Your task to perform on an android device: What is the speed of a train? Image 0: 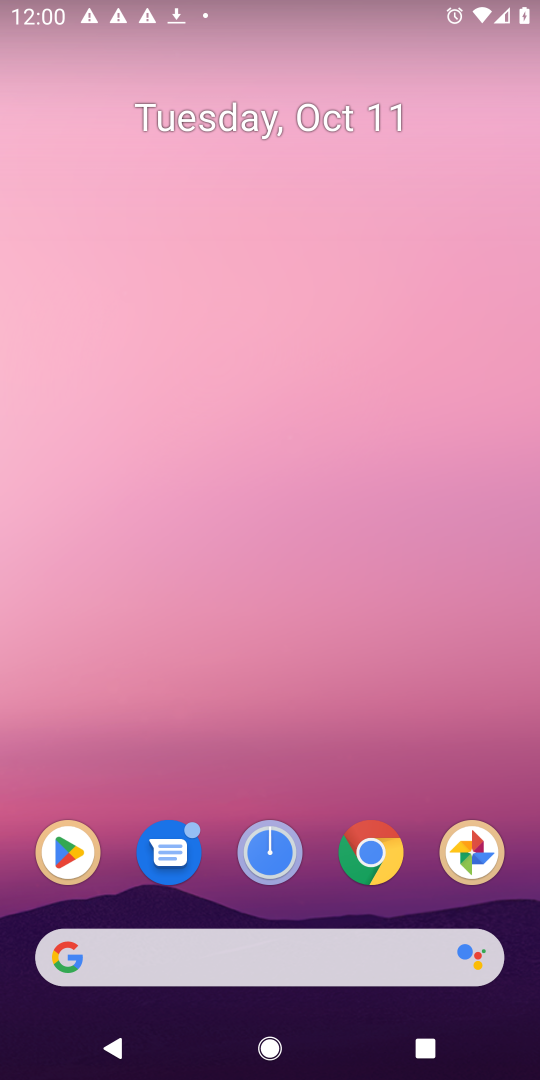
Step 0: click (354, 853)
Your task to perform on an android device: What is the speed of a train? Image 1: 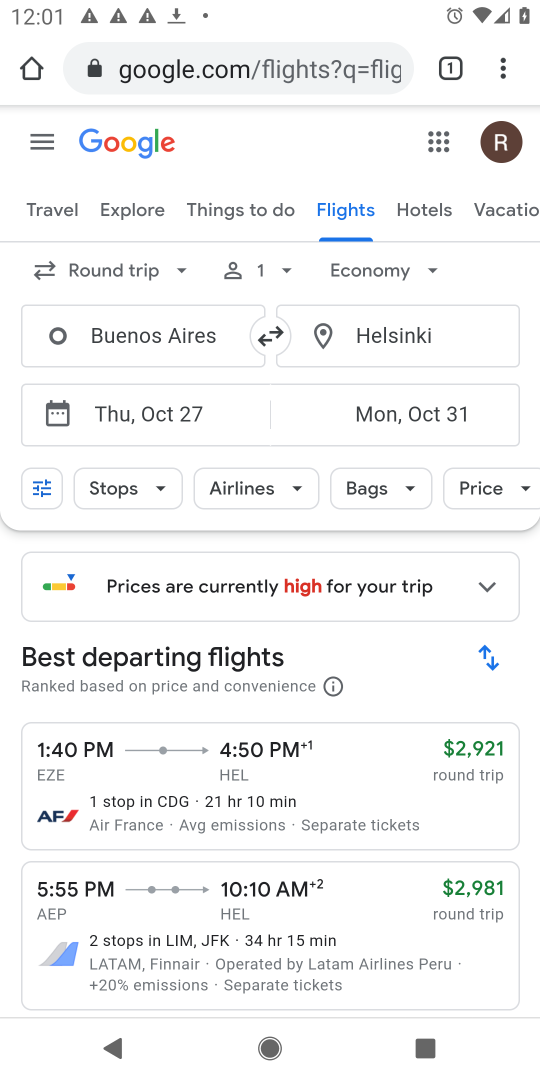
Step 1: click (209, 55)
Your task to perform on an android device: What is the speed of a train? Image 2: 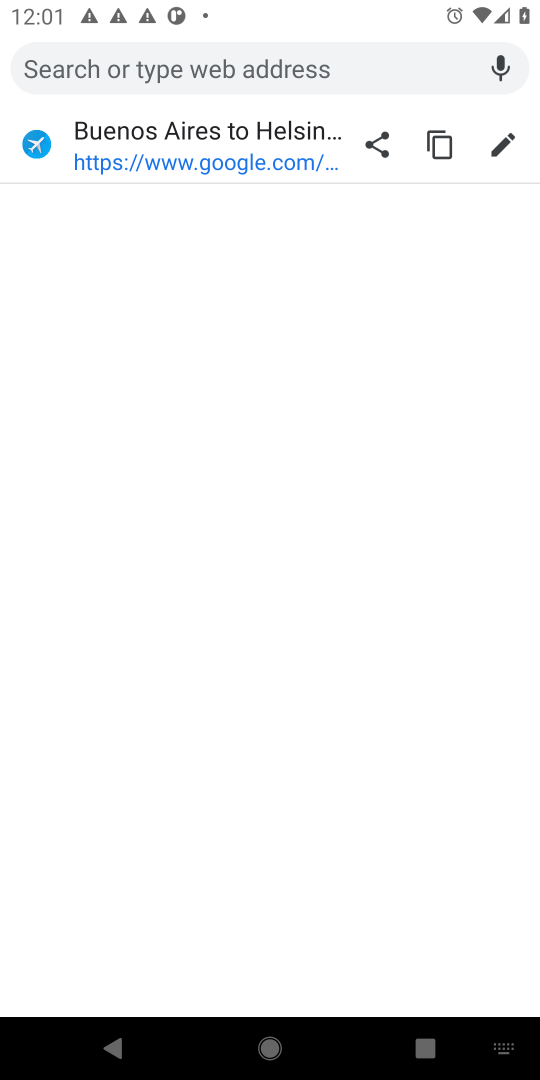
Step 2: type "What is the speed of a train?"
Your task to perform on an android device: What is the speed of a train? Image 3: 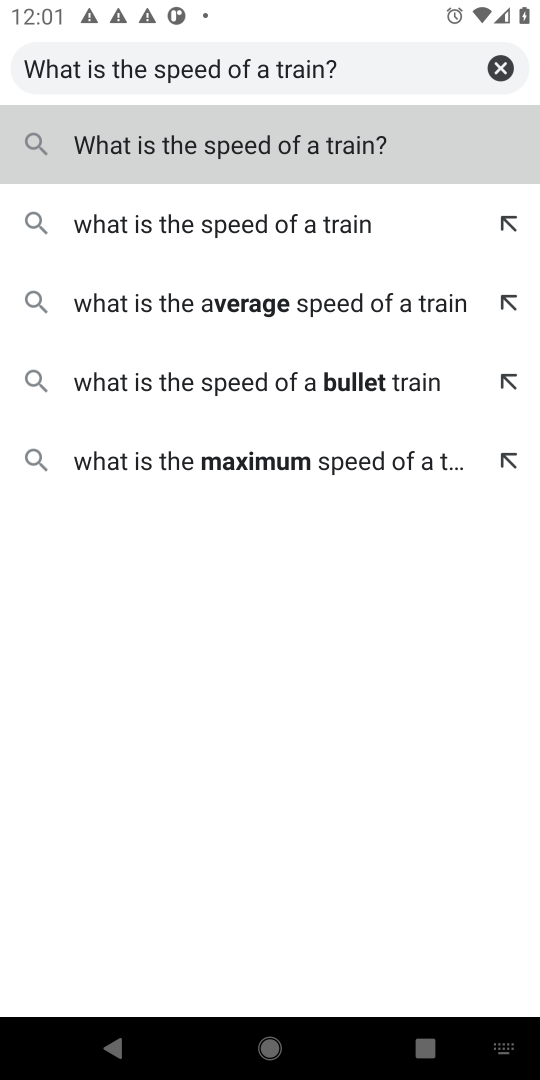
Step 3: click (459, 162)
Your task to perform on an android device: What is the speed of a train? Image 4: 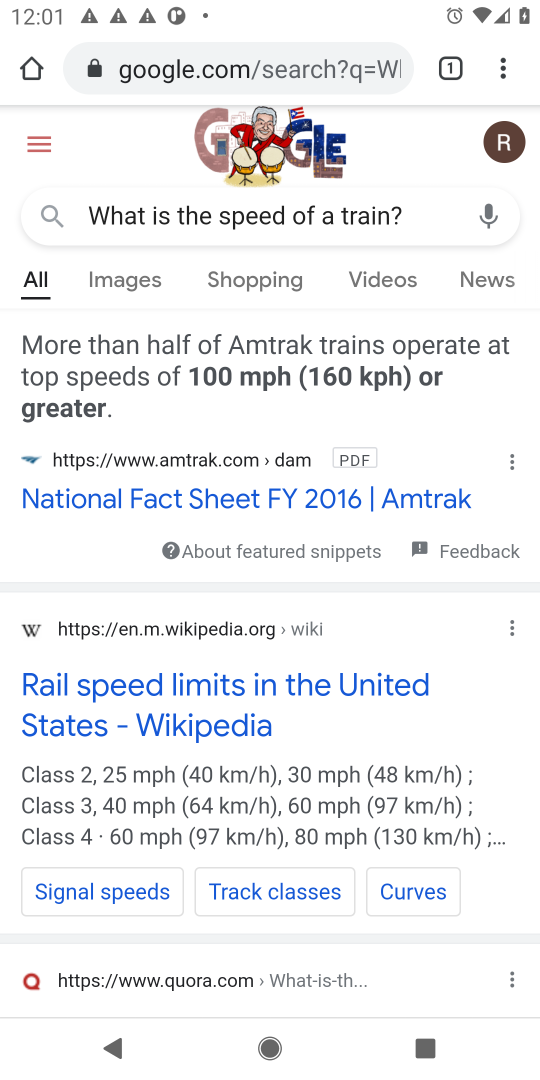
Step 4: task complete